Your task to perform on an android device: turn vacation reply on in the gmail app Image 0: 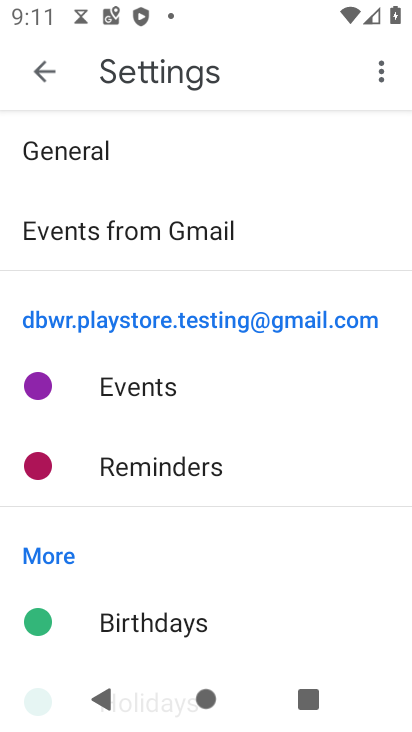
Step 0: press back button
Your task to perform on an android device: turn vacation reply on in the gmail app Image 1: 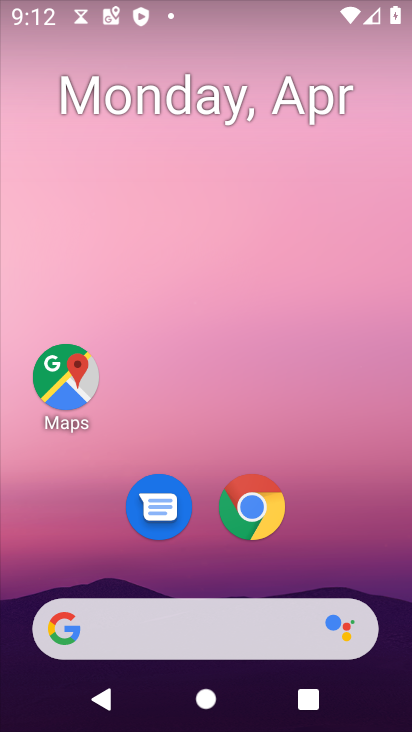
Step 1: drag from (309, 560) to (332, 18)
Your task to perform on an android device: turn vacation reply on in the gmail app Image 2: 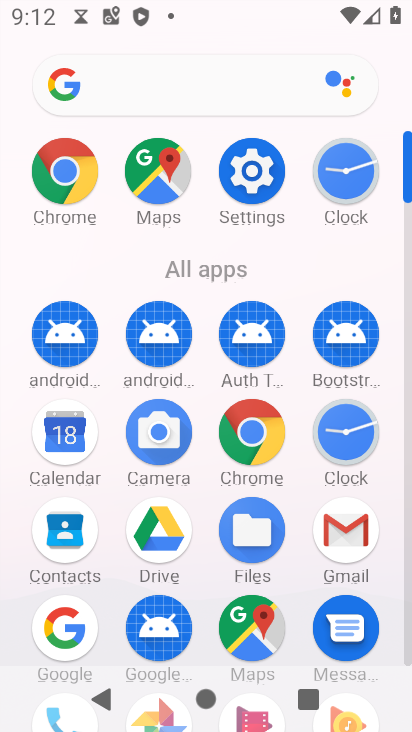
Step 2: click (342, 514)
Your task to perform on an android device: turn vacation reply on in the gmail app Image 3: 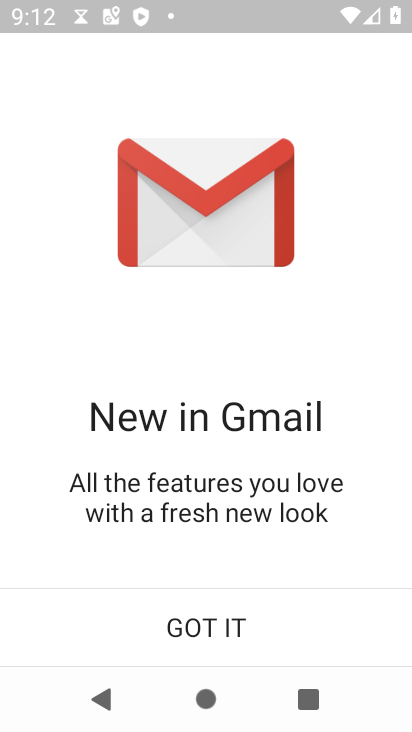
Step 3: click (214, 610)
Your task to perform on an android device: turn vacation reply on in the gmail app Image 4: 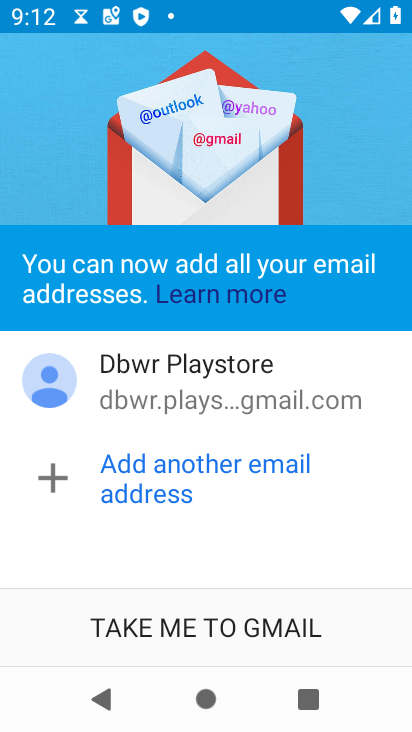
Step 4: click (215, 622)
Your task to perform on an android device: turn vacation reply on in the gmail app Image 5: 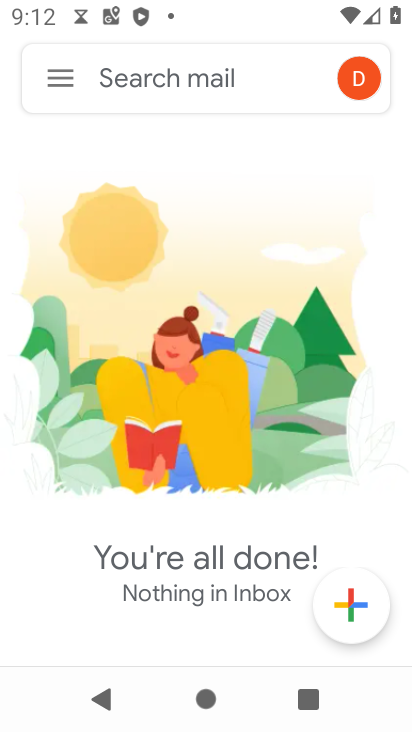
Step 5: click (76, 69)
Your task to perform on an android device: turn vacation reply on in the gmail app Image 6: 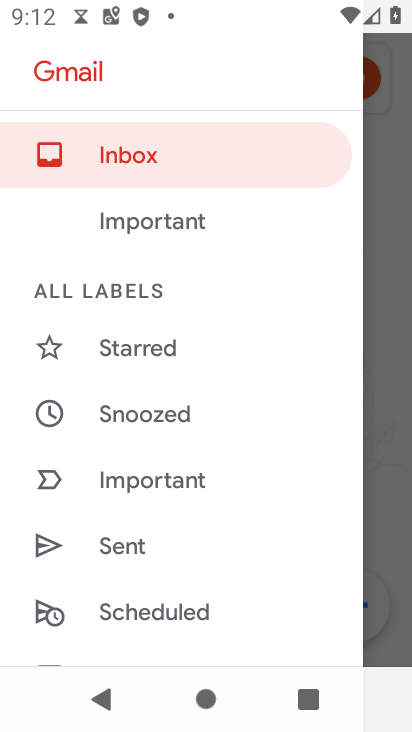
Step 6: drag from (207, 570) to (231, 336)
Your task to perform on an android device: turn vacation reply on in the gmail app Image 7: 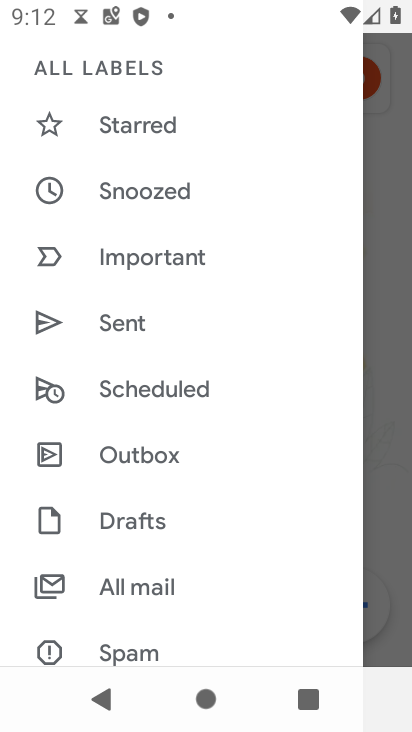
Step 7: drag from (164, 629) to (155, 459)
Your task to perform on an android device: turn vacation reply on in the gmail app Image 8: 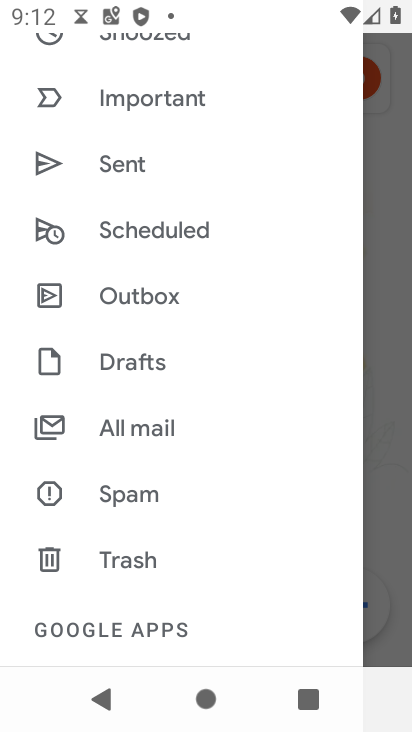
Step 8: drag from (134, 638) to (164, 465)
Your task to perform on an android device: turn vacation reply on in the gmail app Image 9: 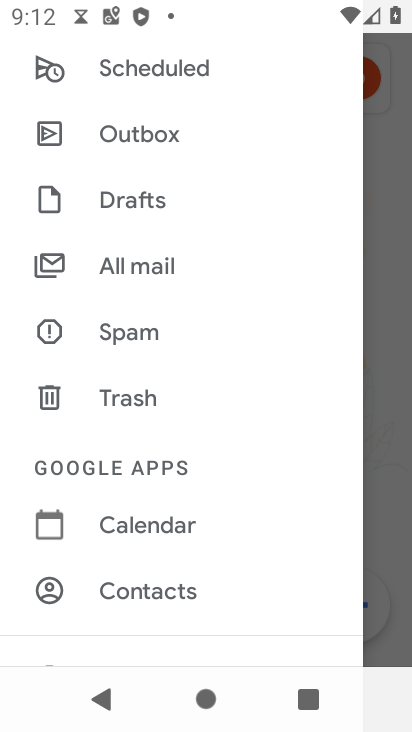
Step 9: drag from (159, 570) to (185, 404)
Your task to perform on an android device: turn vacation reply on in the gmail app Image 10: 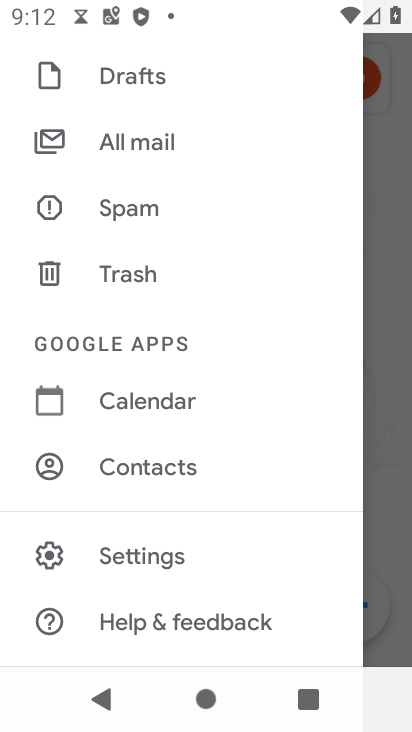
Step 10: click (152, 554)
Your task to perform on an android device: turn vacation reply on in the gmail app Image 11: 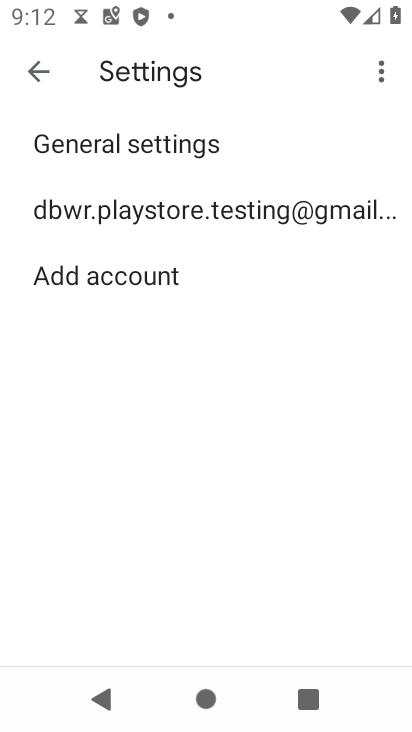
Step 11: click (202, 206)
Your task to perform on an android device: turn vacation reply on in the gmail app Image 12: 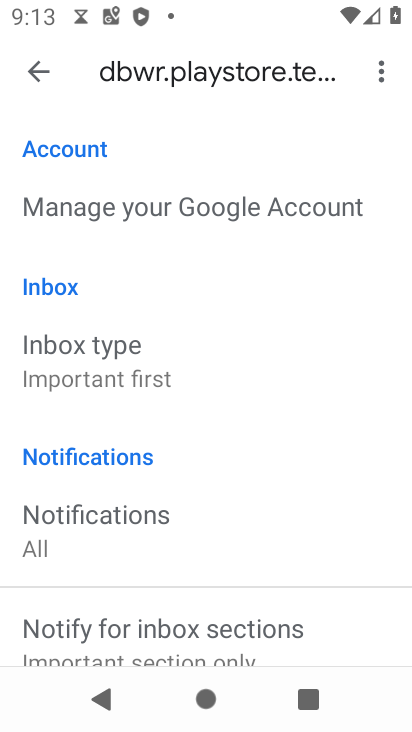
Step 12: drag from (187, 554) to (179, 342)
Your task to perform on an android device: turn vacation reply on in the gmail app Image 13: 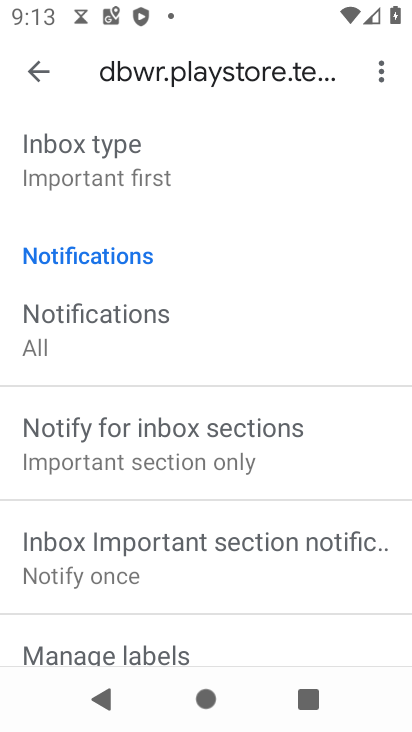
Step 13: drag from (163, 577) to (186, 395)
Your task to perform on an android device: turn vacation reply on in the gmail app Image 14: 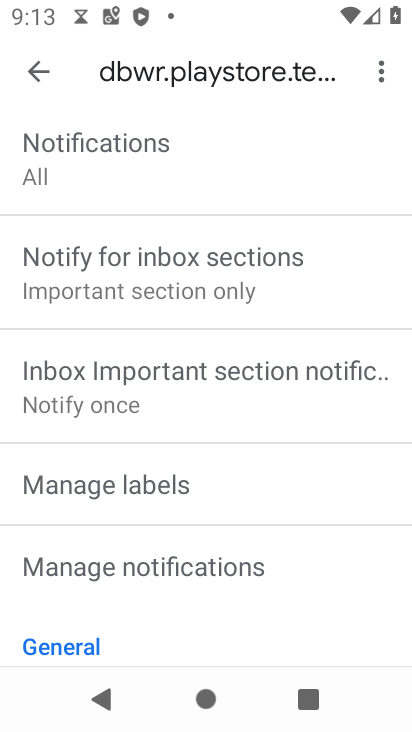
Step 14: drag from (132, 600) to (186, 404)
Your task to perform on an android device: turn vacation reply on in the gmail app Image 15: 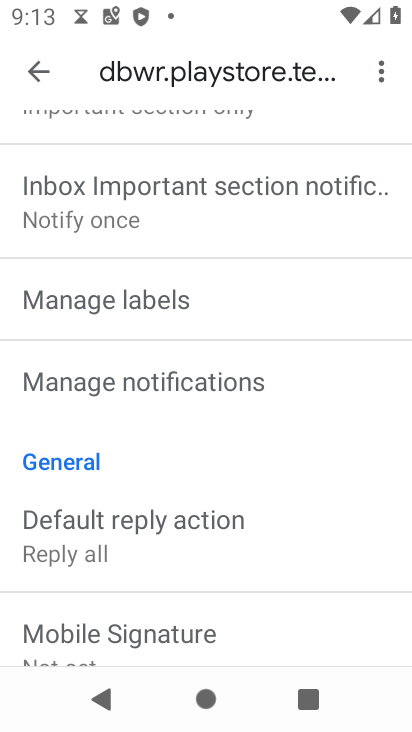
Step 15: drag from (178, 584) to (231, 421)
Your task to perform on an android device: turn vacation reply on in the gmail app Image 16: 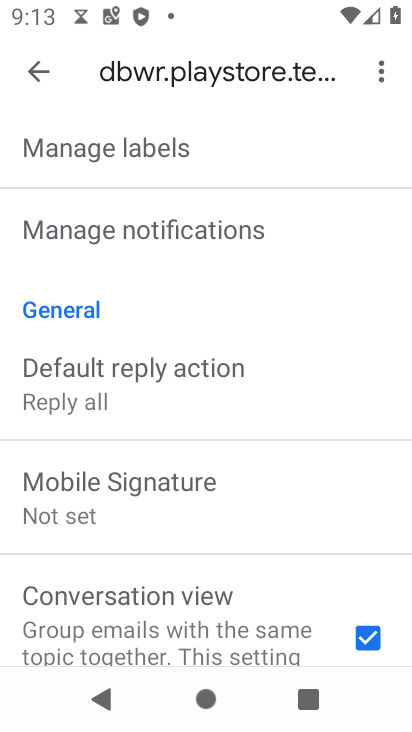
Step 16: drag from (212, 616) to (245, 492)
Your task to perform on an android device: turn vacation reply on in the gmail app Image 17: 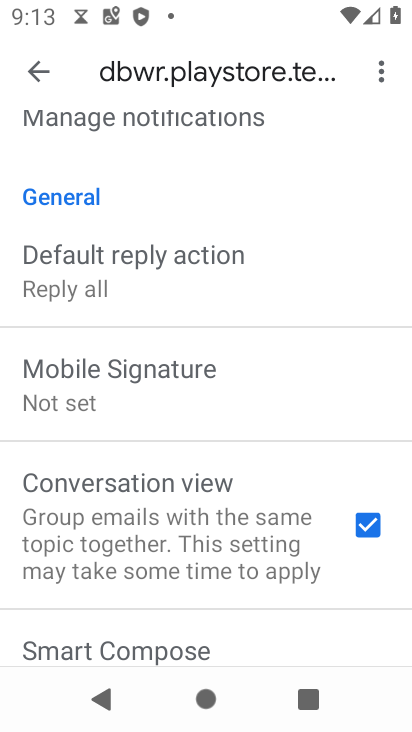
Step 17: drag from (248, 637) to (292, 480)
Your task to perform on an android device: turn vacation reply on in the gmail app Image 18: 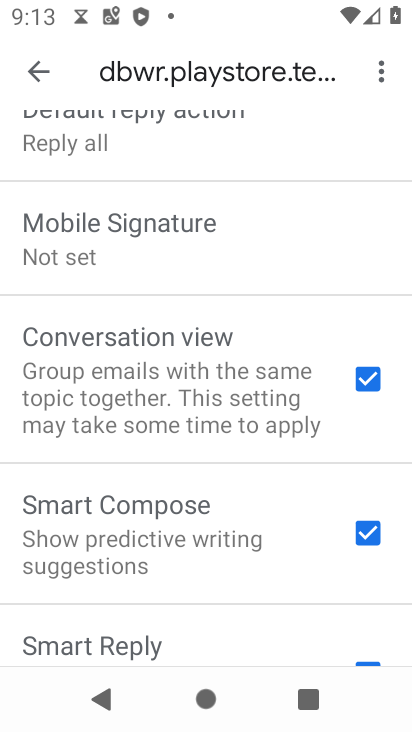
Step 18: drag from (237, 615) to (258, 500)
Your task to perform on an android device: turn vacation reply on in the gmail app Image 19: 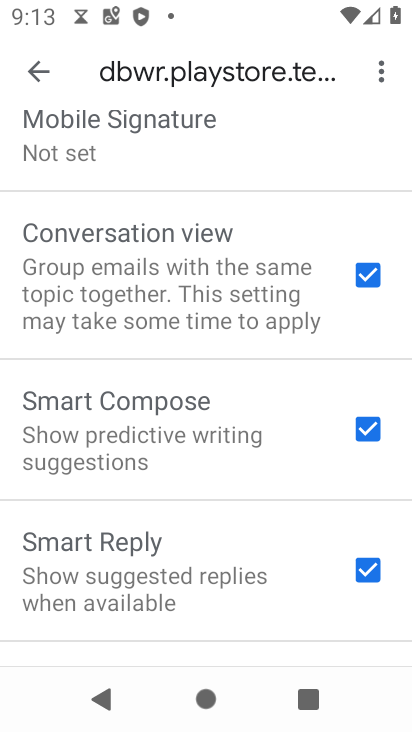
Step 19: drag from (213, 603) to (248, 488)
Your task to perform on an android device: turn vacation reply on in the gmail app Image 20: 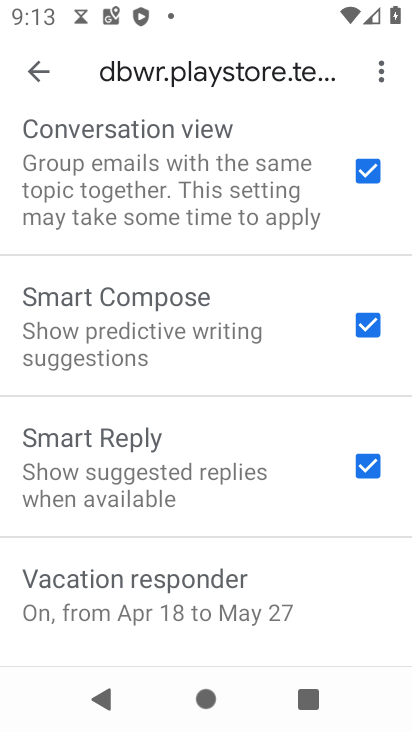
Step 20: click (211, 598)
Your task to perform on an android device: turn vacation reply on in the gmail app Image 21: 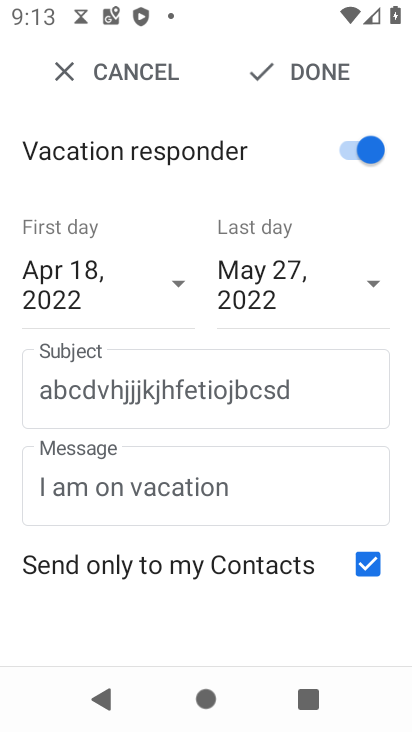
Step 21: click (327, 75)
Your task to perform on an android device: turn vacation reply on in the gmail app Image 22: 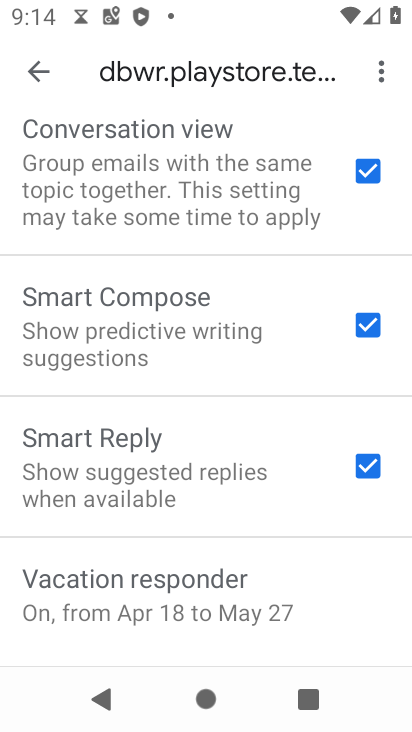
Step 22: task complete